Your task to perform on an android device: Go to Wikipedia Image 0: 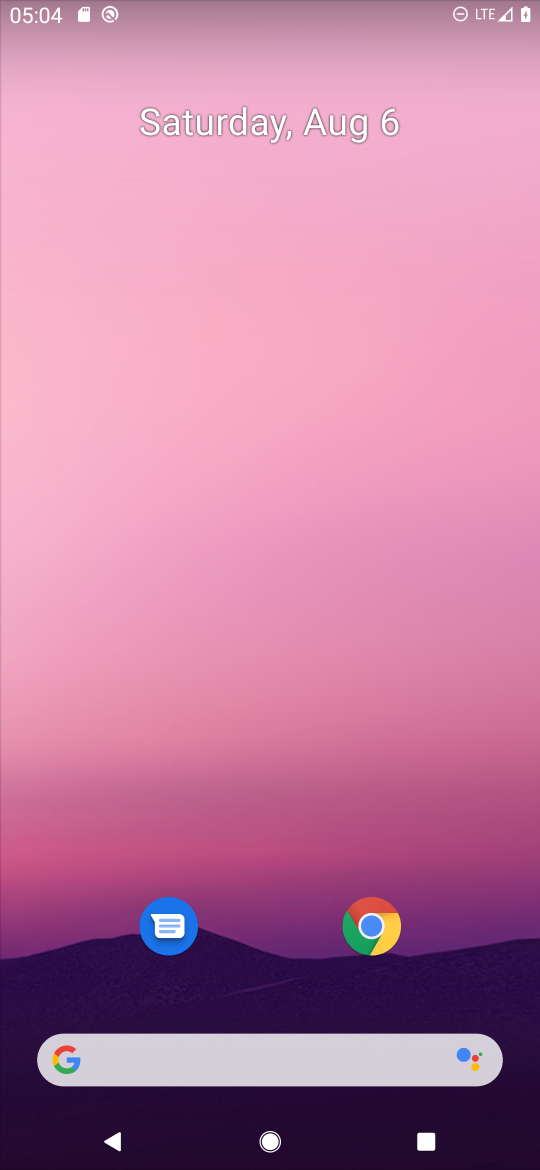
Step 0: click (355, 936)
Your task to perform on an android device: Go to Wikipedia Image 1: 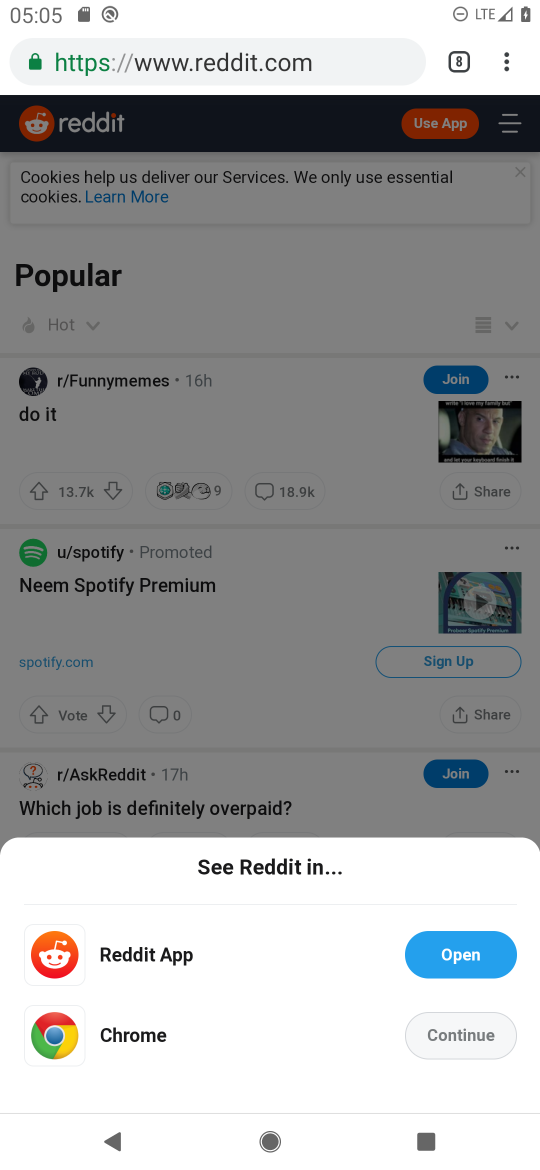
Step 1: click (506, 74)
Your task to perform on an android device: Go to Wikipedia Image 2: 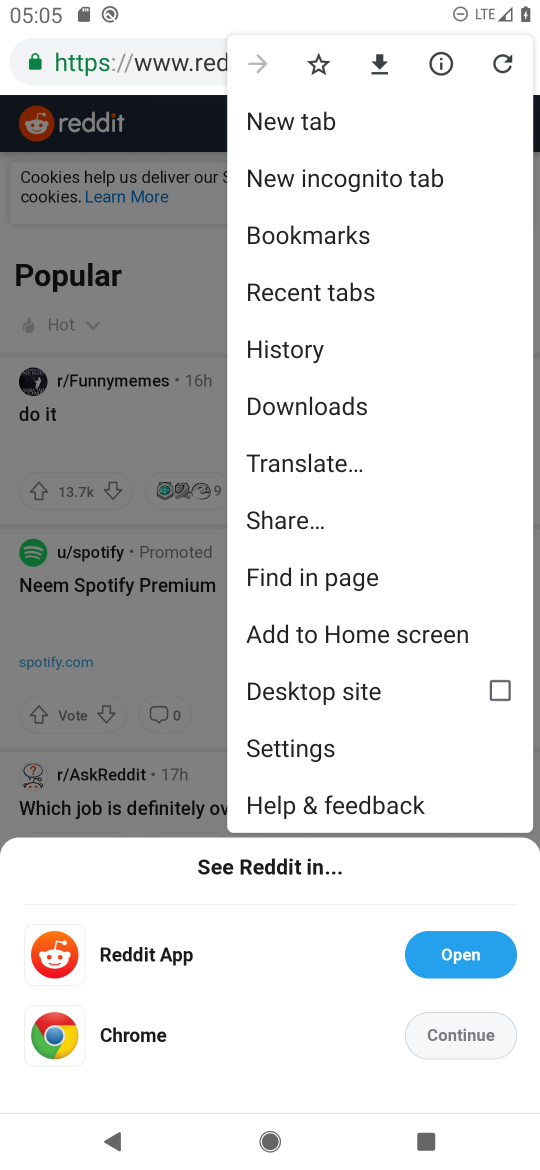
Step 2: click (136, 271)
Your task to perform on an android device: Go to Wikipedia Image 3: 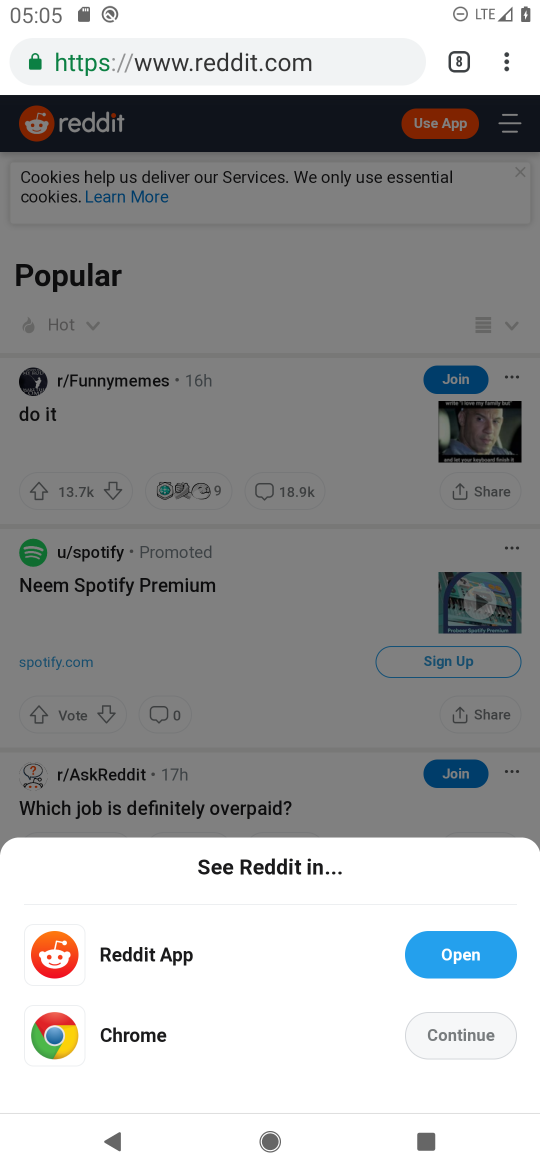
Step 3: click (447, 60)
Your task to perform on an android device: Go to Wikipedia Image 4: 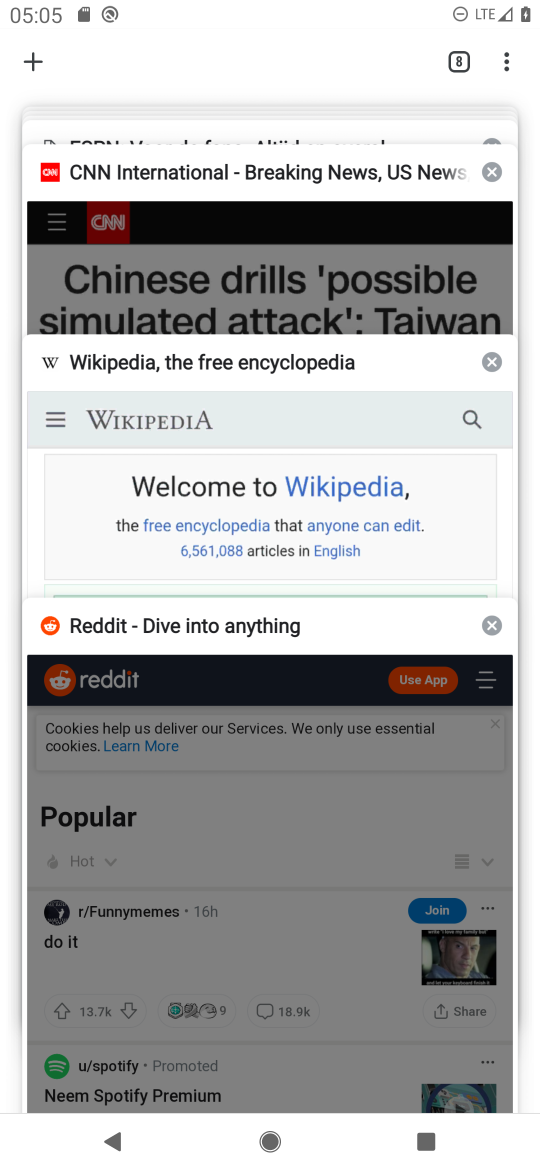
Step 4: click (150, 465)
Your task to perform on an android device: Go to Wikipedia Image 5: 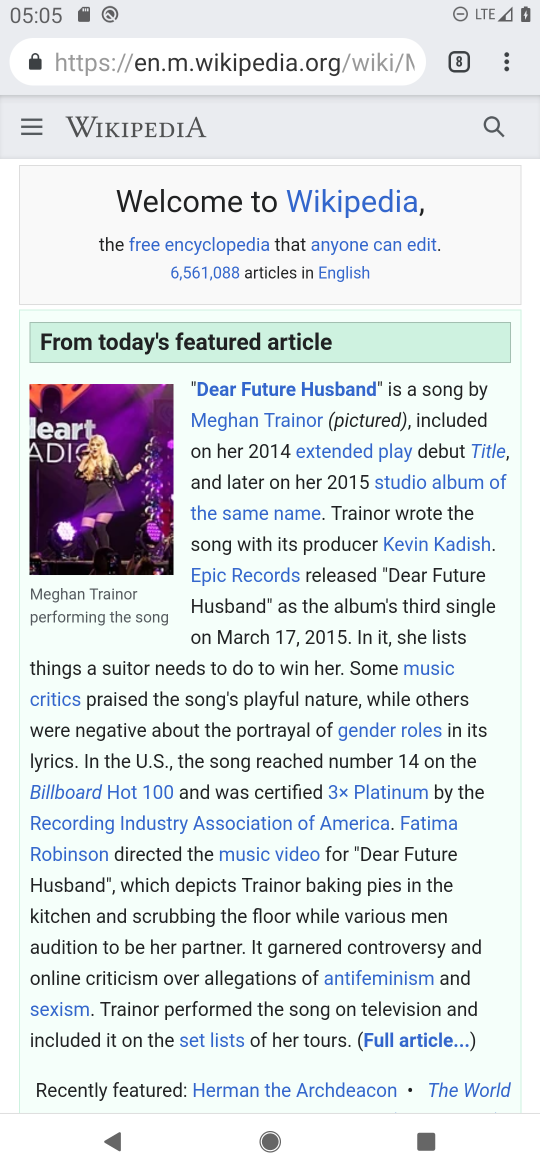
Step 5: task complete